Your task to perform on an android device: change your default location settings in chrome Image 0: 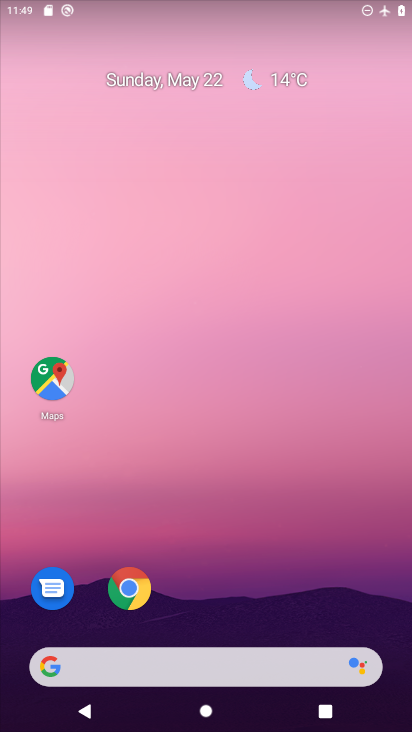
Step 0: click (142, 588)
Your task to perform on an android device: change your default location settings in chrome Image 1: 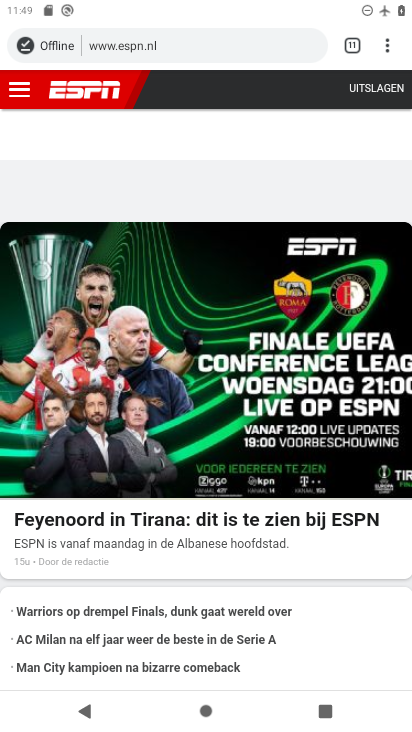
Step 1: click (389, 47)
Your task to perform on an android device: change your default location settings in chrome Image 2: 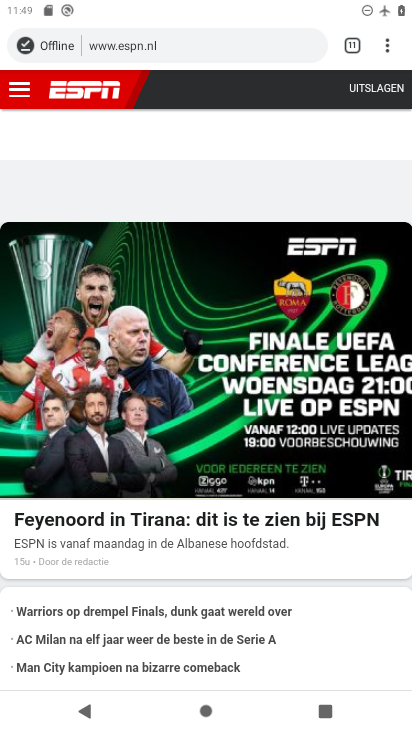
Step 2: click (386, 43)
Your task to perform on an android device: change your default location settings in chrome Image 3: 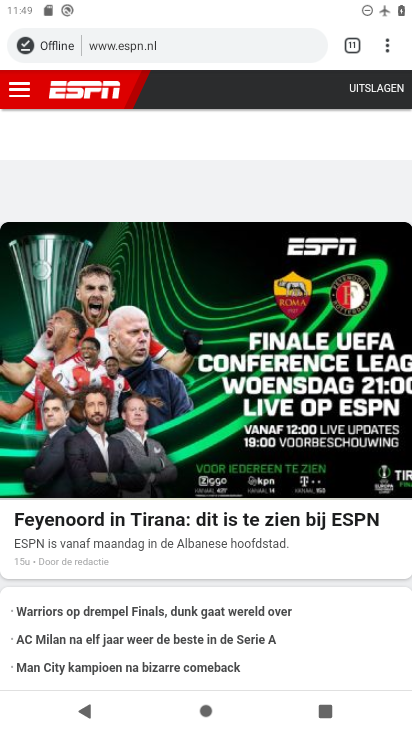
Step 3: drag from (385, 49) to (220, 499)
Your task to perform on an android device: change your default location settings in chrome Image 4: 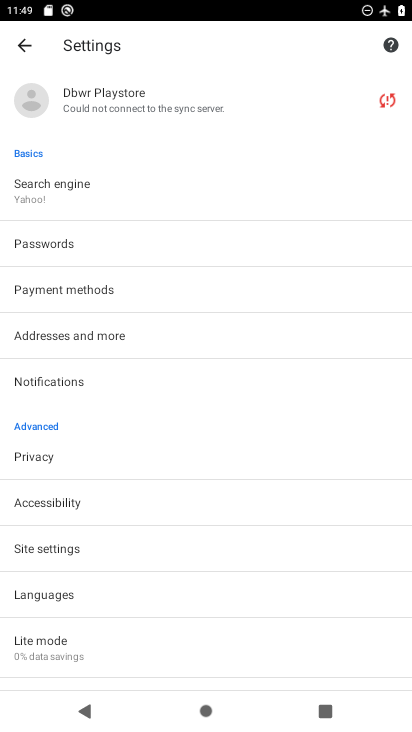
Step 4: drag from (149, 431) to (177, 379)
Your task to perform on an android device: change your default location settings in chrome Image 5: 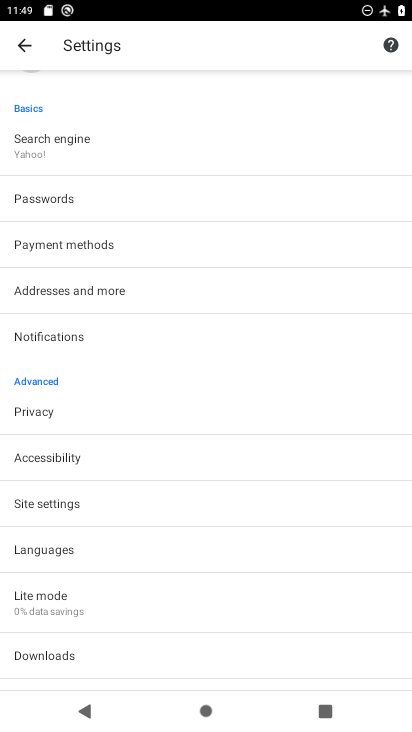
Step 5: click (71, 498)
Your task to perform on an android device: change your default location settings in chrome Image 6: 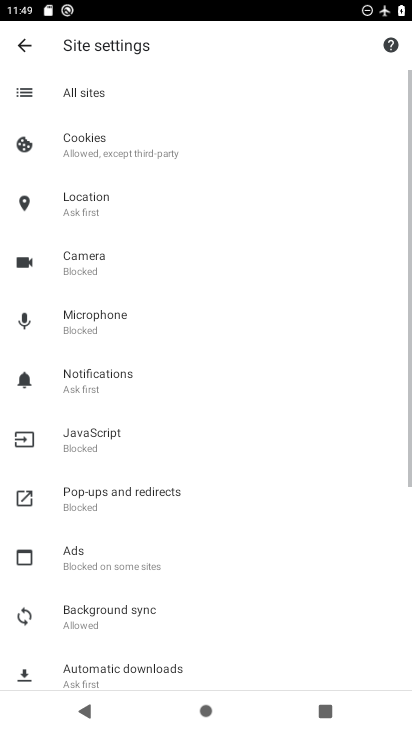
Step 6: click (147, 209)
Your task to perform on an android device: change your default location settings in chrome Image 7: 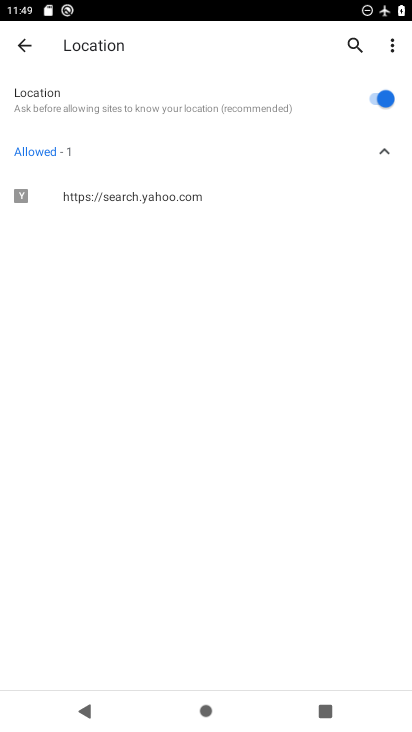
Step 7: click (373, 89)
Your task to perform on an android device: change your default location settings in chrome Image 8: 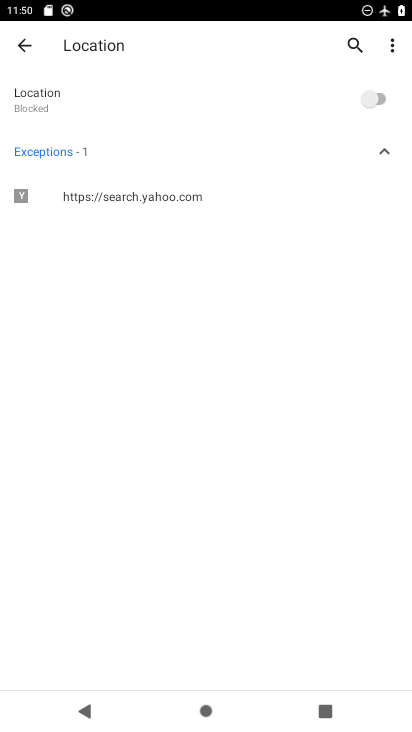
Step 8: task complete